Your task to perform on an android device: turn off airplane mode Image 0: 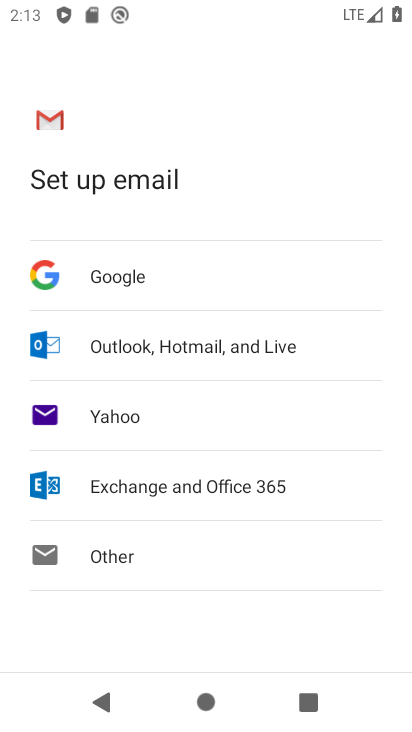
Step 0: drag from (354, 21) to (342, 495)
Your task to perform on an android device: turn off airplane mode Image 1: 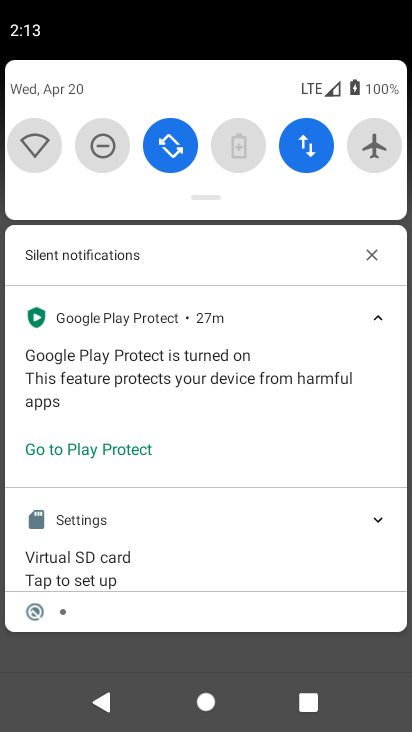
Step 1: task complete